Your task to perform on an android device: Check the news Image 0: 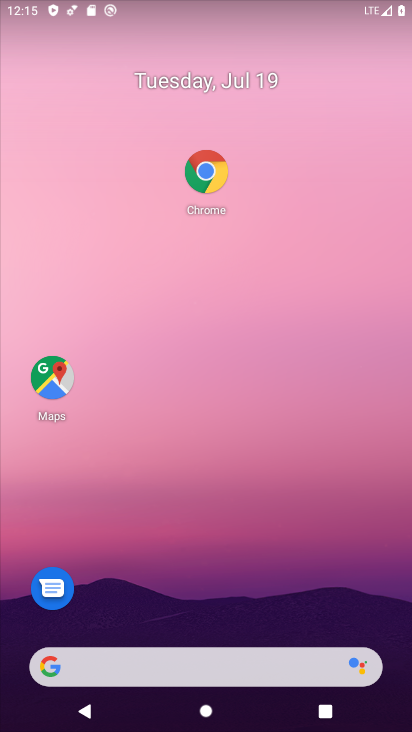
Step 0: click (117, 674)
Your task to perform on an android device: Check the news Image 1: 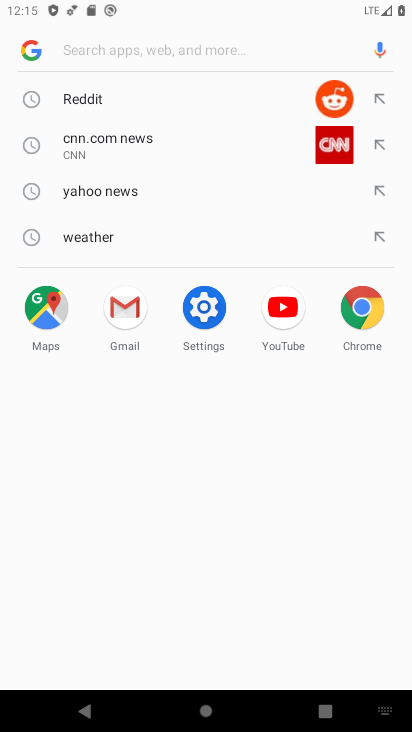
Step 1: click (33, 60)
Your task to perform on an android device: Check the news Image 2: 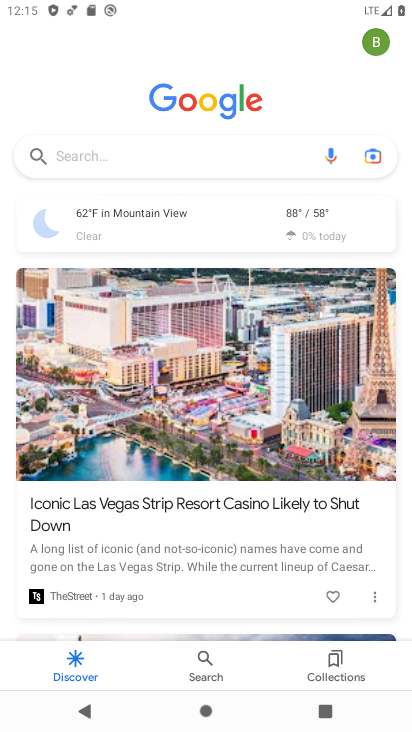
Step 2: task complete